Your task to perform on an android device: Open Yahoo.com Image 0: 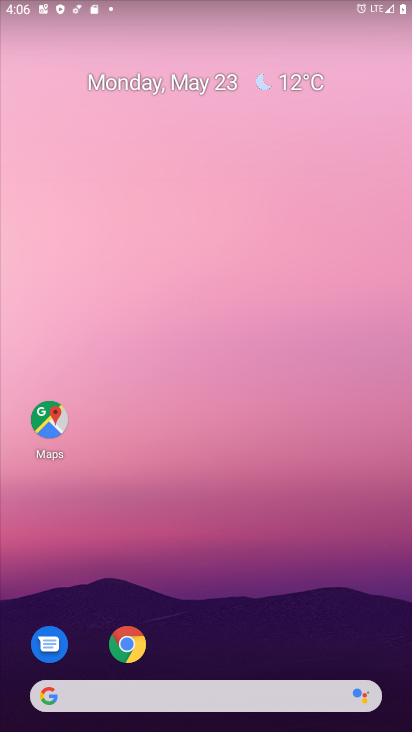
Step 0: click (131, 638)
Your task to perform on an android device: Open Yahoo.com Image 1: 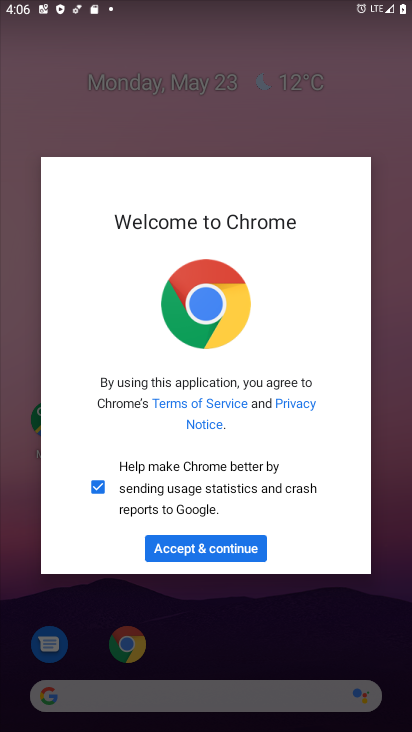
Step 1: click (208, 552)
Your task to perform on an android device: Open Yahoo.com Image 2: 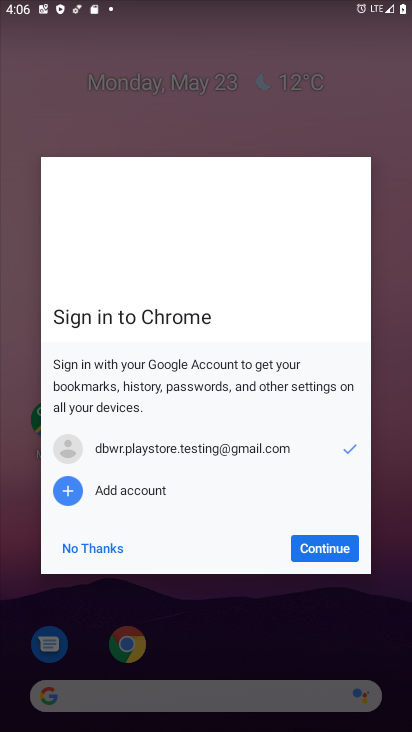
Step 2: click (321, 545)
Your task to perform on an android device: Open Yahoo.com Image 3: 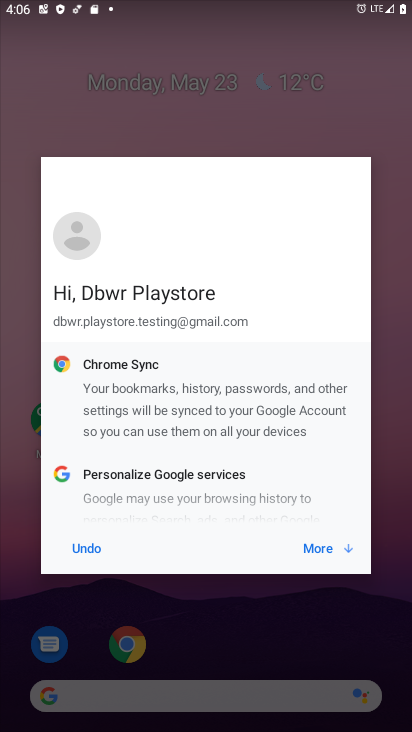
Step 3: click (320, 544)
Your task to perform on an android device: Open Yahoo.com Image 4: 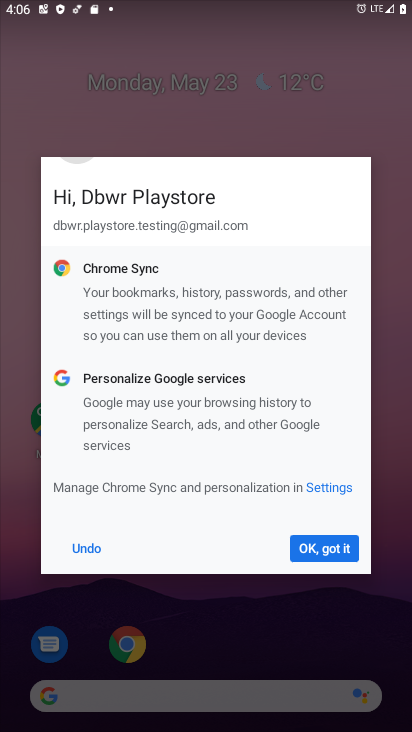
Step 4: click (320, 544)
Your task to perform on an android device: Open Yahoo.com Image 5: 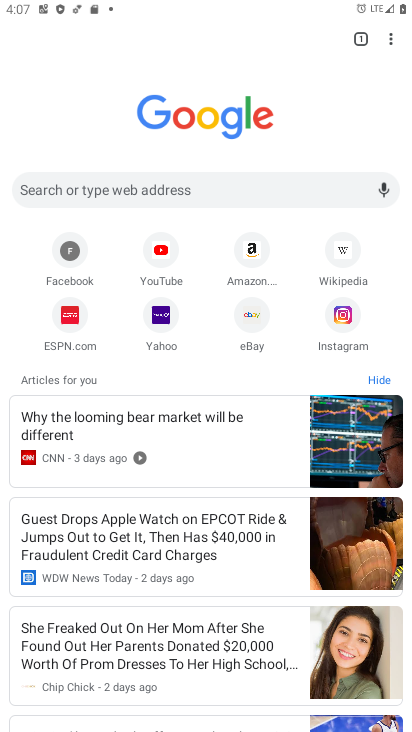
Step 5: click (163, 327)
Your task to perform on an android device: Open Yahoo.com Image 6: 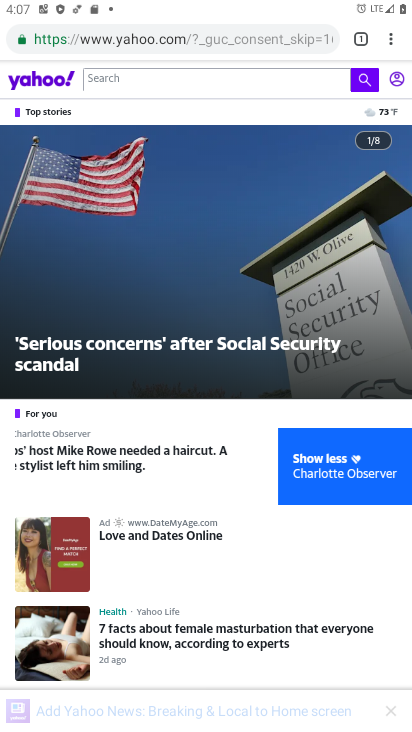
Step 6: task complete